Your task to perform on an android device: Check the weather Image 0: 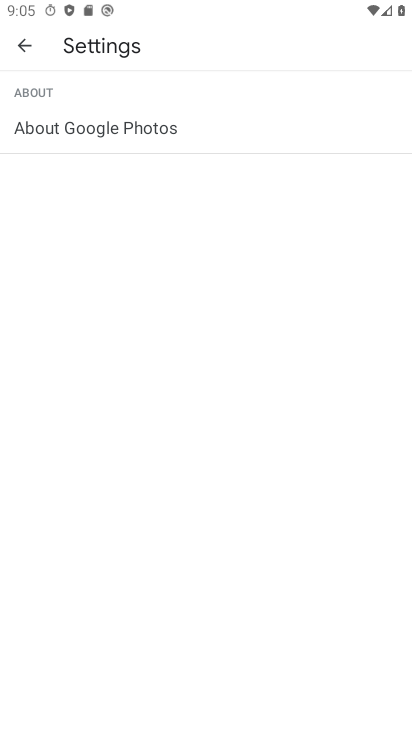
Step 0: click (22, 37)
Your task to perform on an android device: Check the weather Image 1: 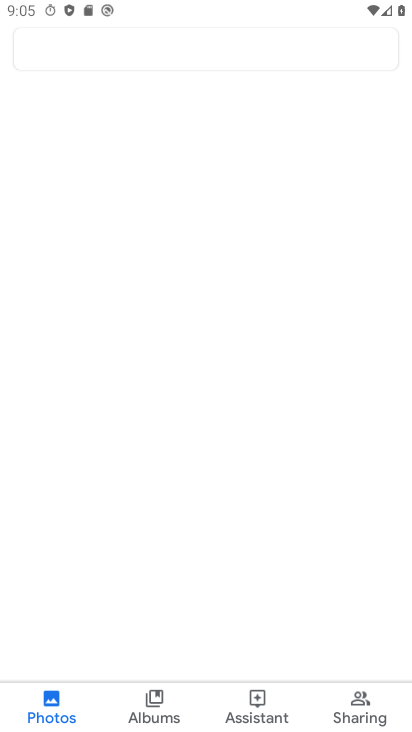
Step 1: press back button
Your task to perform on an android device: Check the weather Image 2: 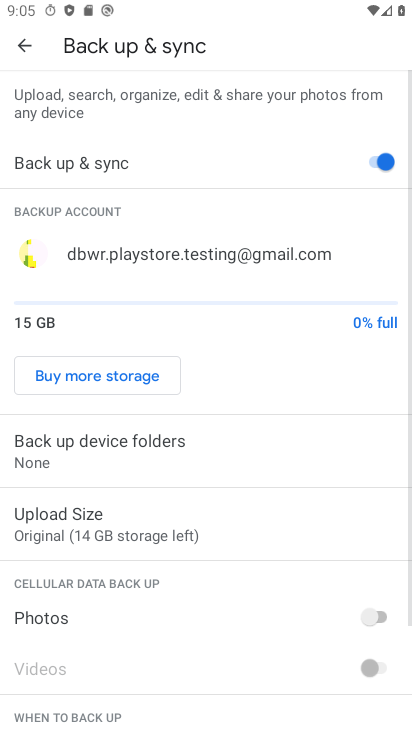
Step 2: press home button
Your task to perform on an android device: Check the weather Image 3: 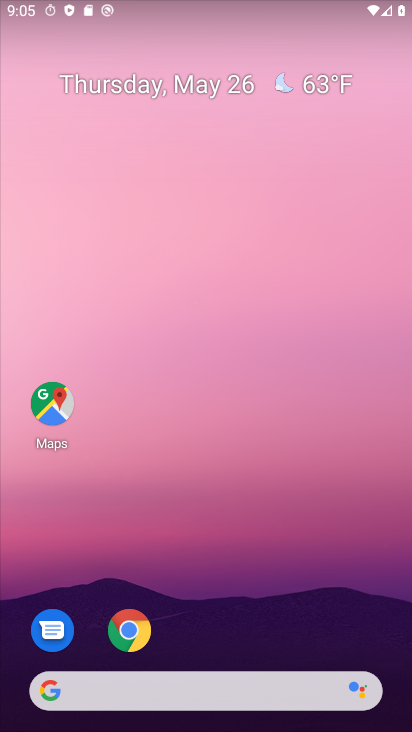
Step 3: drag from (367, 405) to (383, 468)
Your task to perform on an android device: Check the weather Image 4: 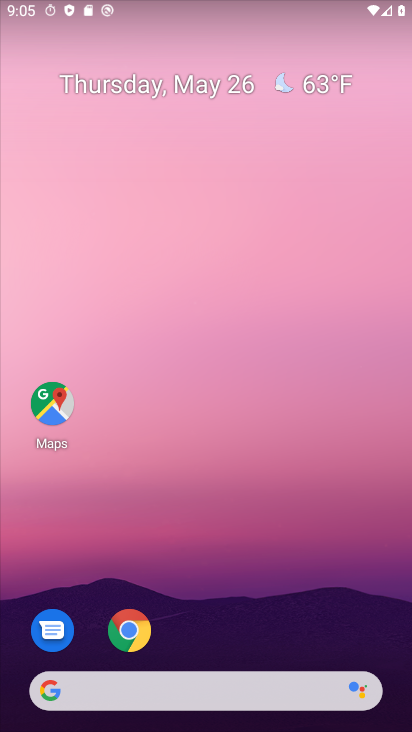
Step 4: click (283, 472)
Your task to perform on an android device: Check the weather Image 5: 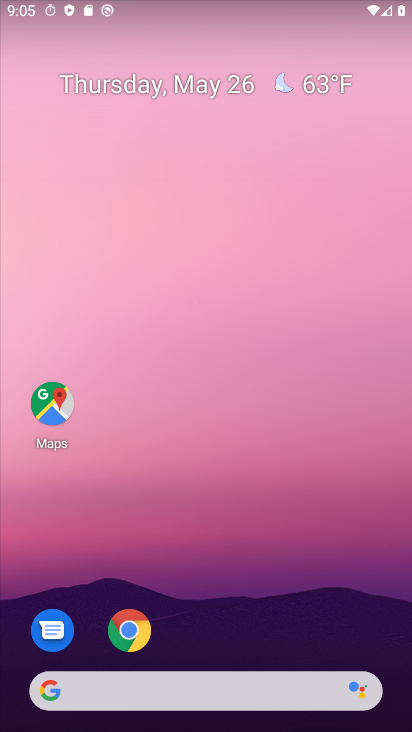
Step 5: drag from (376, 392) to (390, 343)
Your task to perform on an android device: Check the weather Image 6: 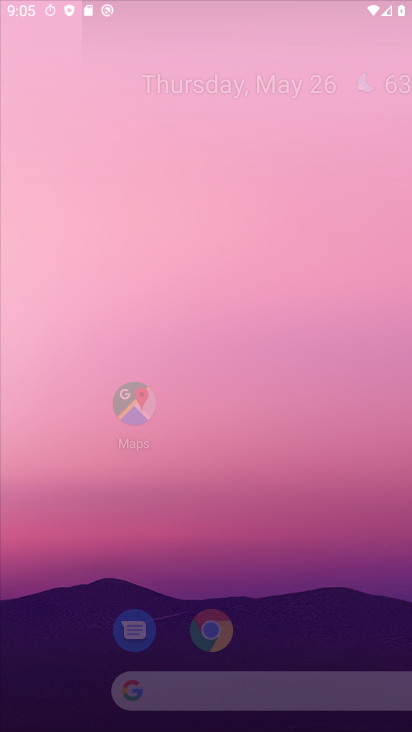
Step 6: drag from (166, 277) to (333, 305)
Your task to perform on an android device: Check the weather Image 7: 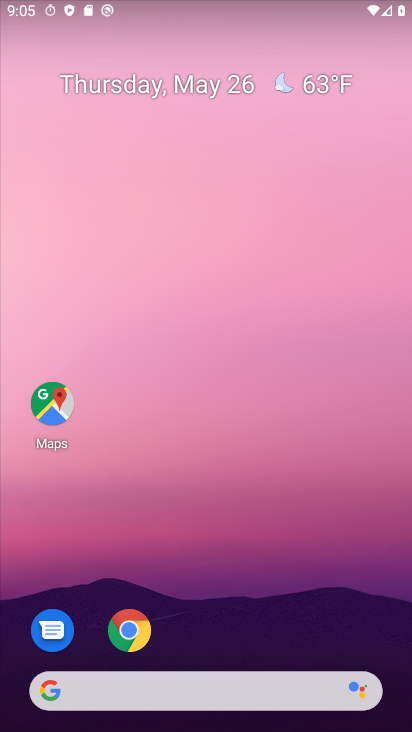
Step 7: click (379, 394)
Your task to perform on an android device: Check the weather Image 8: 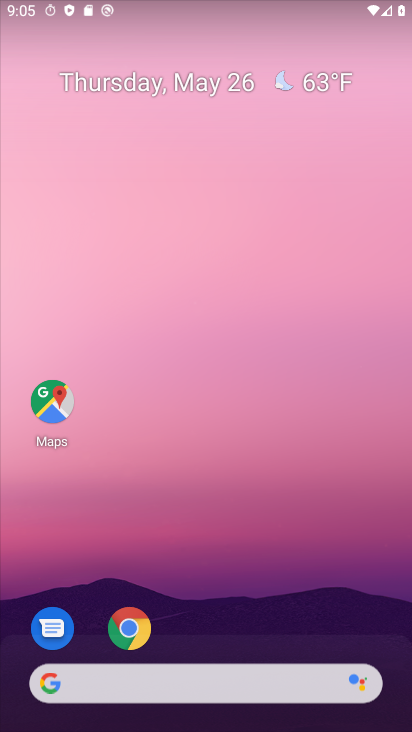
Step 8: drag from (19, 243) to (407, 409)
Your task to perform on an android device: Check the weather Image 9: 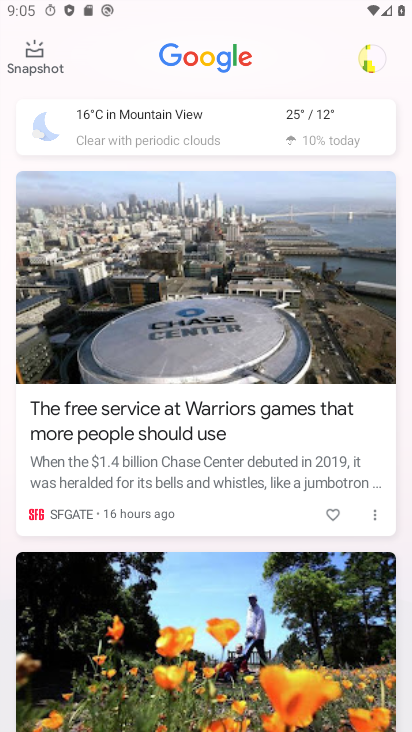
Step 9: click (180, 124)
Your task to perform on an android device: Check the weather Image 10: 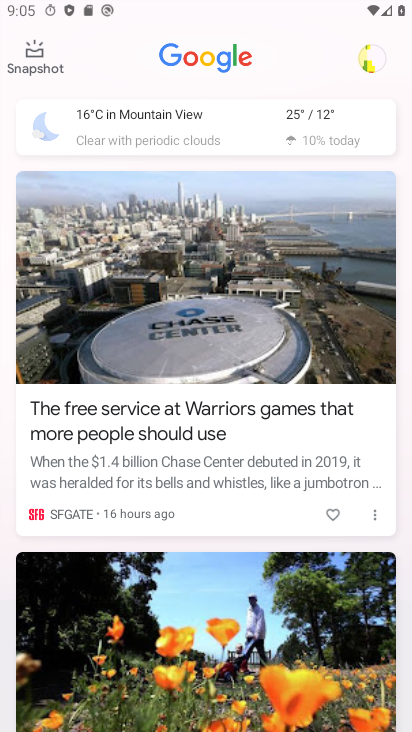
Step 10: click (178, 124)
Your task to perform on an android device: Check the weather Image 11: 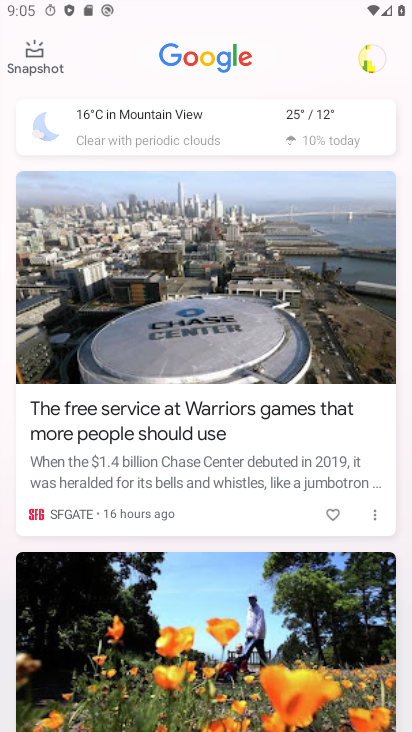
Step 11: click (174, 124)
Your task to perform on an android device: Check the weather Image 12: 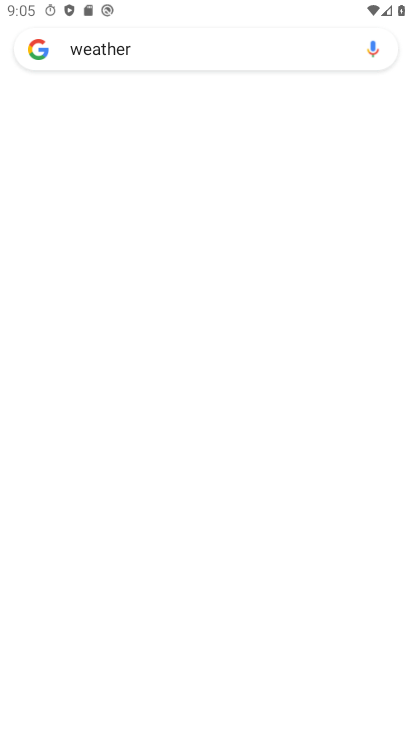
Step 12: click (182, 119)
Your task to perform on an android device: Check the weather Image 13: 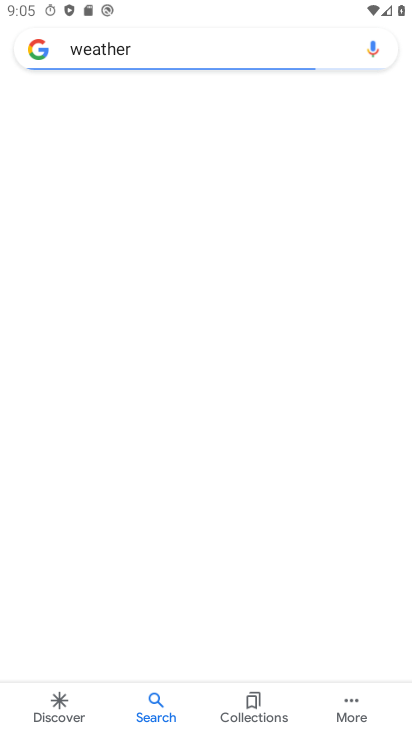
Step 13: click (186, 118)
Your task to perform on an android device: Check the weather Image 14: 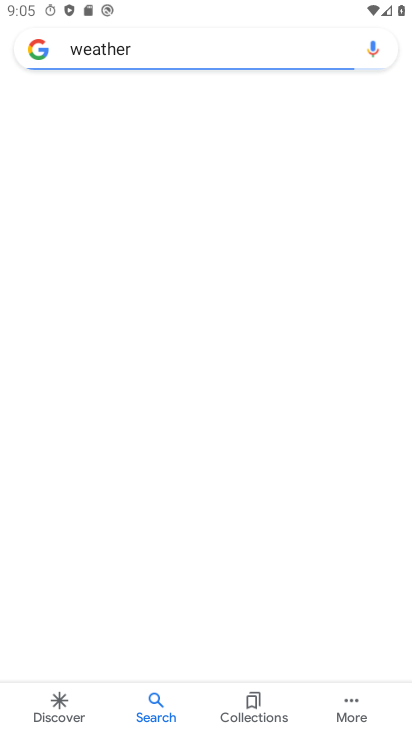
Step 14: click (188, 117)
Your task to perform on an android device: Check the weather Image 15: 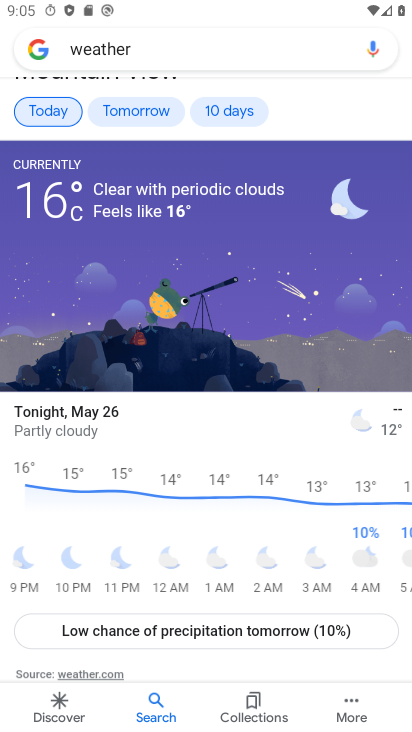
Step 15: task complete